Your task to perform on an android device: star an email in the gmail app Image 0: 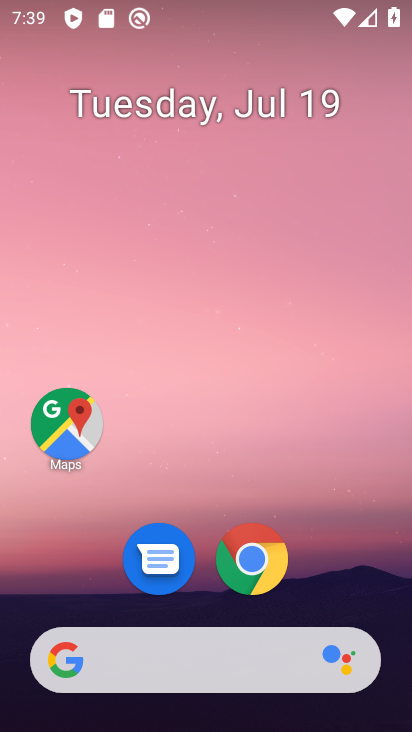
Step 0: drag from (79, 565) to (237, 31)
Your task to perform on an android device: star an email in the gmail app Image 1: 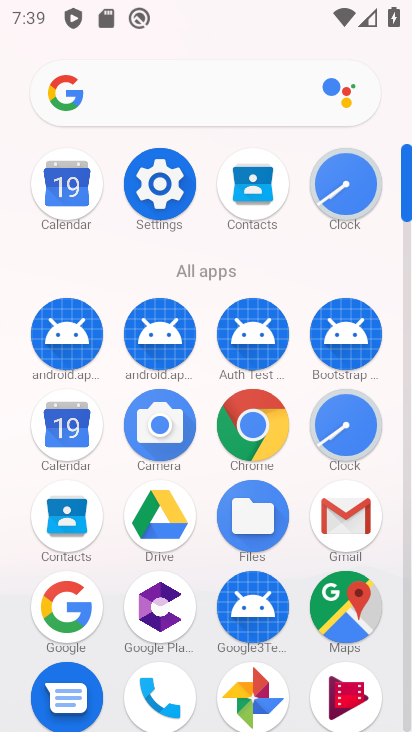
Step 1: click (344, 529)
Your task to perform on an android device: star an email in the gmail app Image 2: 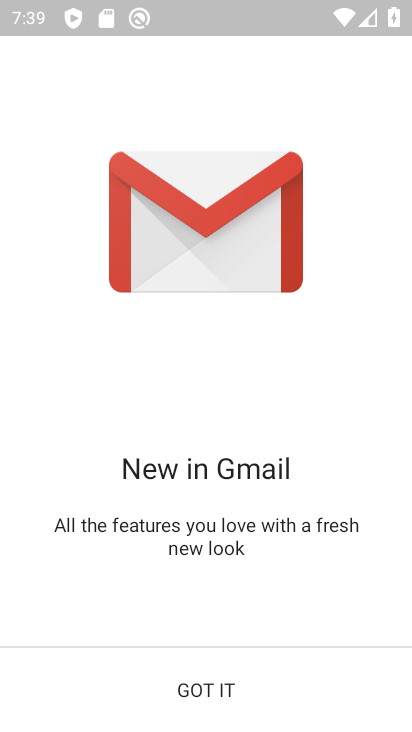
Step 2: click (215, 669)
Your task to perform on an android device: star an email in the gmail app Image 3: 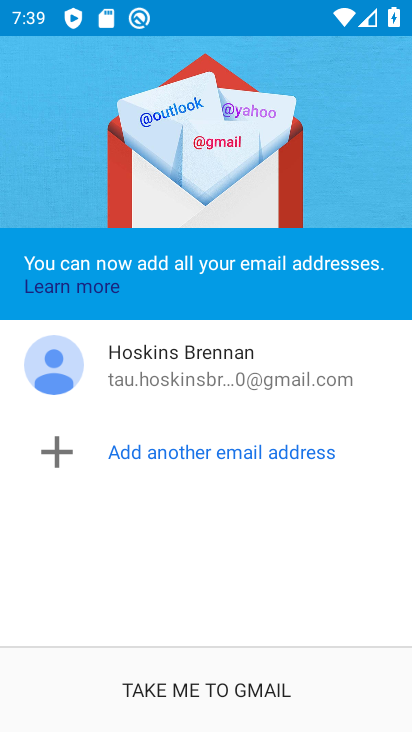
Step 3: click (253, 684)
Your task to perform on an android device: star an email in the gmail app Image 4: 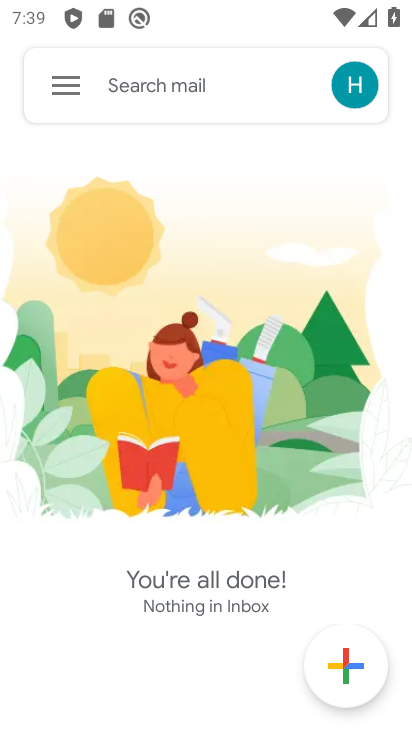
Step 4: click (65, 77)
Your task to perform on an android device: star an email in the gmail app Image 5: 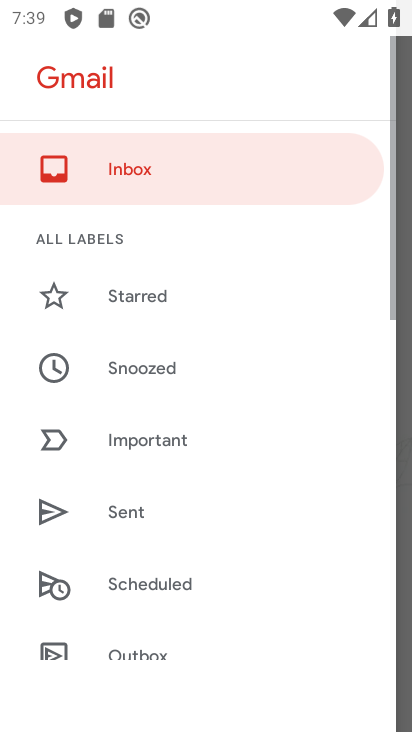
Step 5: drag from (189, 601) to (260, 137)
Your task to perform on an android device: star an email in the gmail app Image 6: 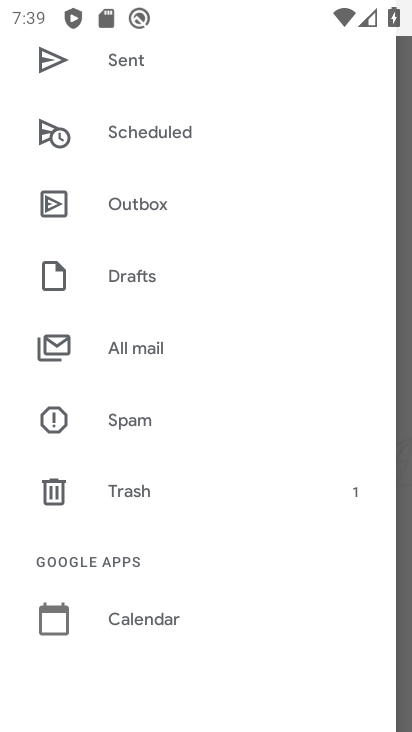
Step 6: click (142, 347)
Your task to perform on an android device: star an email in the gmail app Image 7: 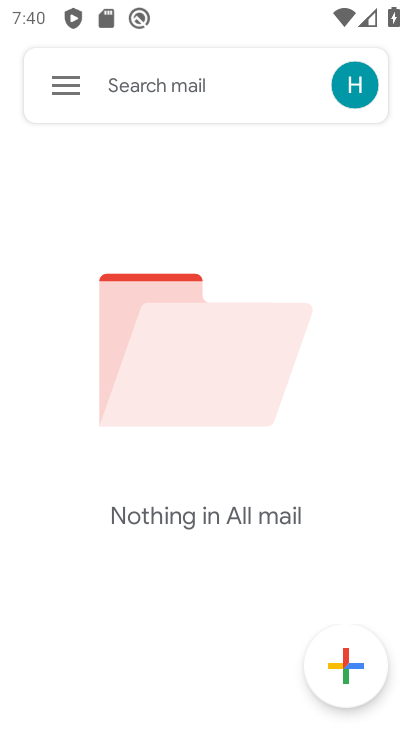
Step 7: task complete